Your task to perform on an android device: Open calendar and show me the second week of next month Image 0: 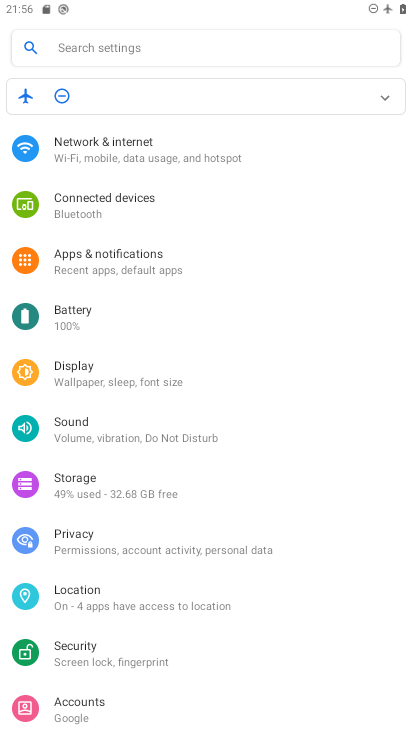
Step 0: press home button
Your task to perform on an android device: Open calendar and show me the second week of next month Image 1: 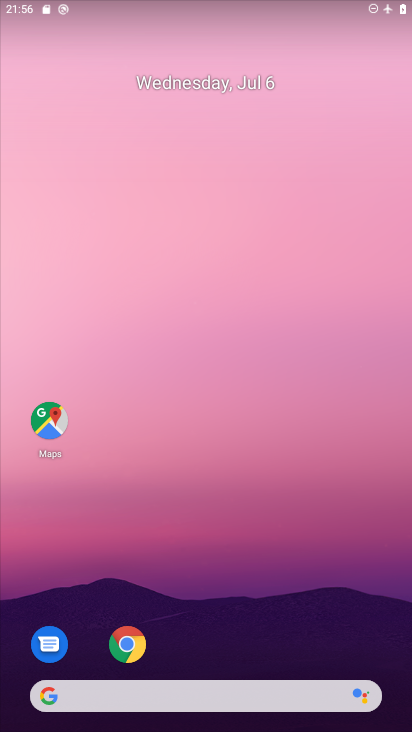
Step 1: drag from (256, 620) to (257, 202)
Your task to perform on an android device: Open calendar and show me the second week of next month Image 2: 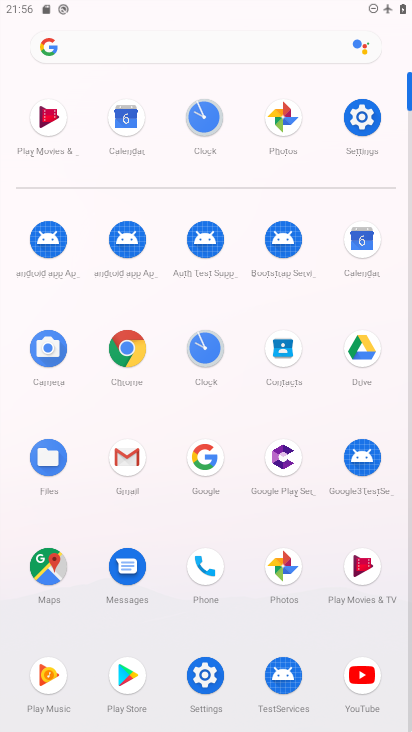
Step 2: click (356, 249)
Your task to perform on an android device: Open calendar and show me the second week of next month Image 3: 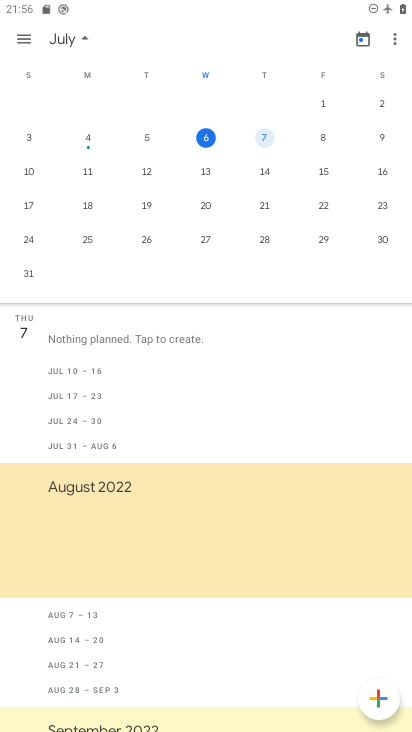
Step 3: drag from (334, 170) to (3, 142)
Your task to perform on an android device: Open calendar and show me the second week of next month Image 4: 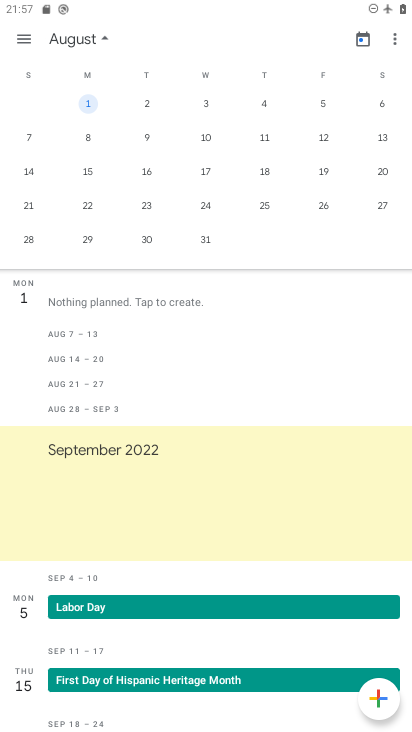
Step 4: click (84, 129)
Your task to perform on an android device: Open calendar and show me the second week of next month Image 5: 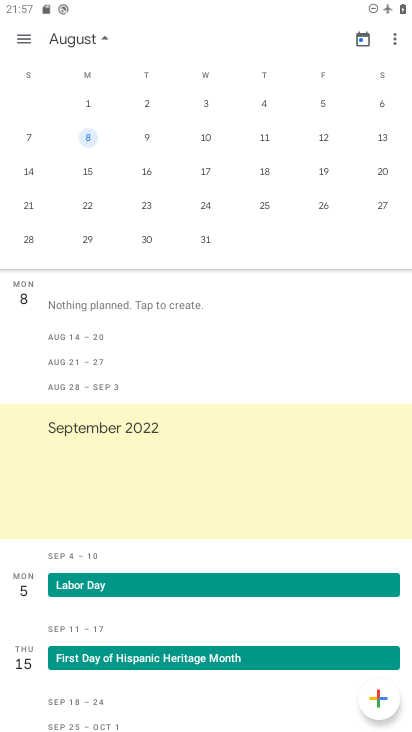
Step 5: task complete